Your task to perform on an android device: What's the weather? Image 0: 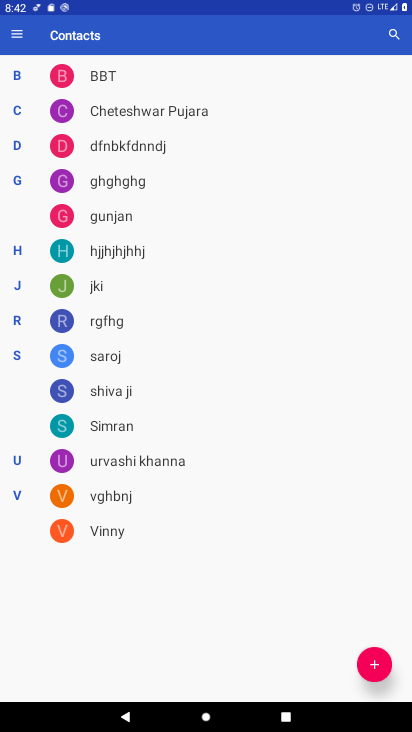
Step 0: press home button
Your task to perform on an android device: What's the weather? Image 1: 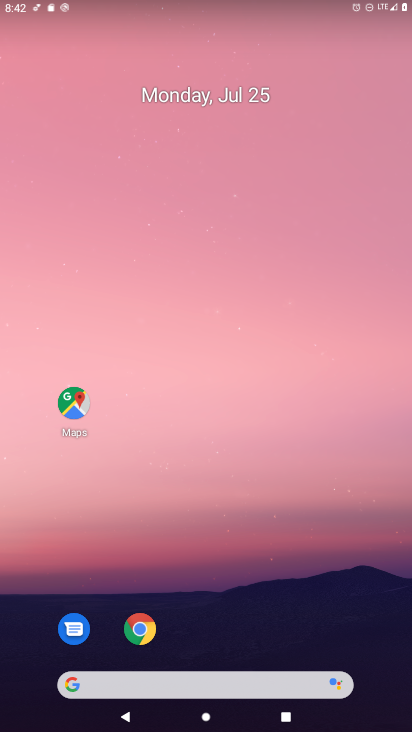
Step 1: click (142, 627)
Your task to perform on an android device: What's the weather? Image 2: 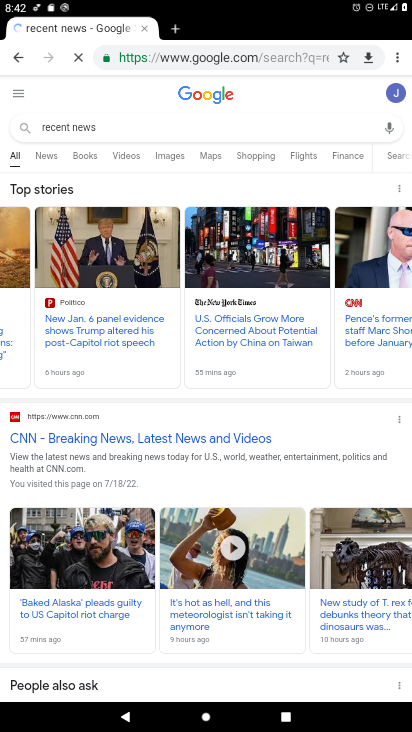
Step 2: click (251, 63)
Your task to perform on an android device: What's the weather? Image 3: 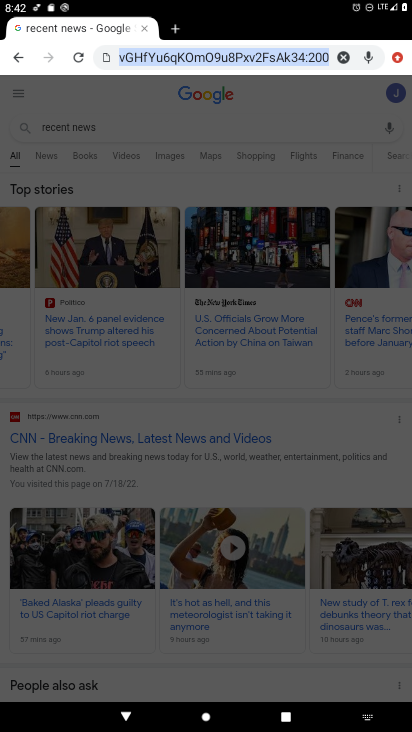
Step 3: type "weather"
Your task to perform on an android device: What's the weather? Image 4: 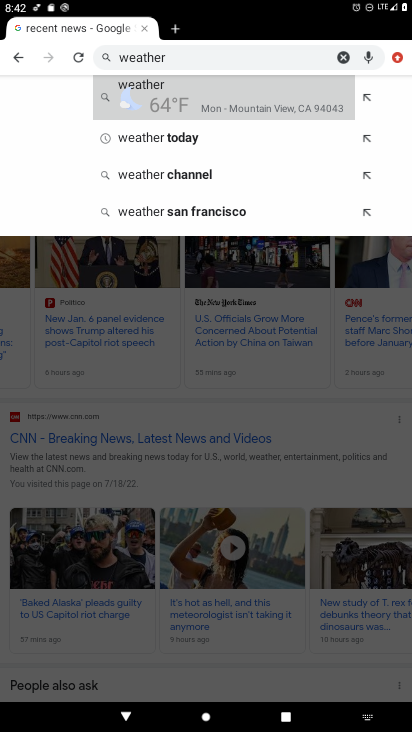
Step 4: click (270, 94)
Your task to perform on an android device: What's the weather? Image 5: 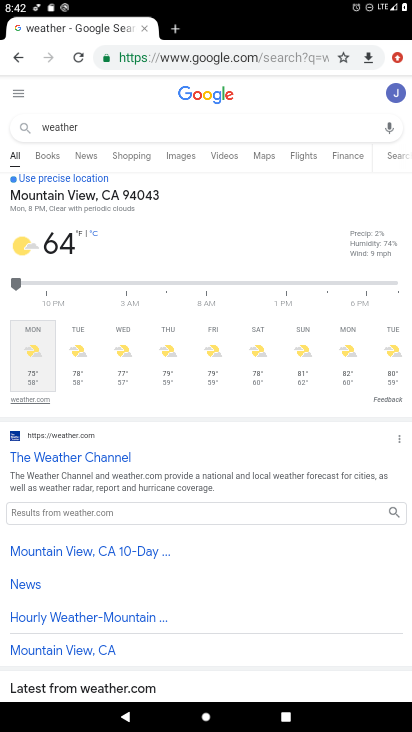
Step 5: task complete